Your task to perform on an android device: Show me recent news Image 0: 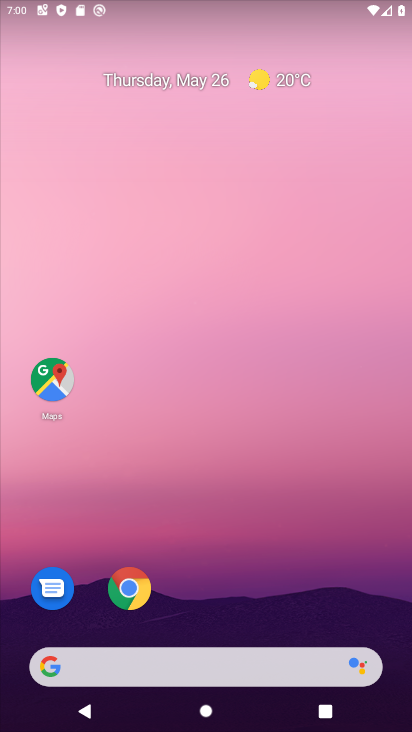
Step 0: drag from (370, 600) to (267, 63)
Your task to perform on an android device: Show me recent news Image 1: 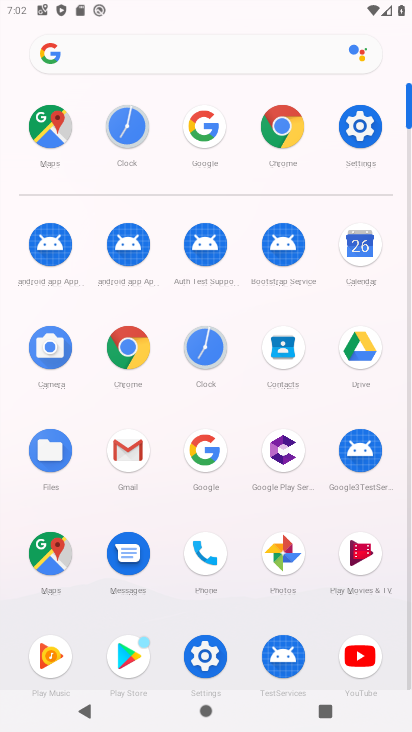
Step 1: click (203, 460)
Your task to perform on an android device: Show me recent news Image 2: 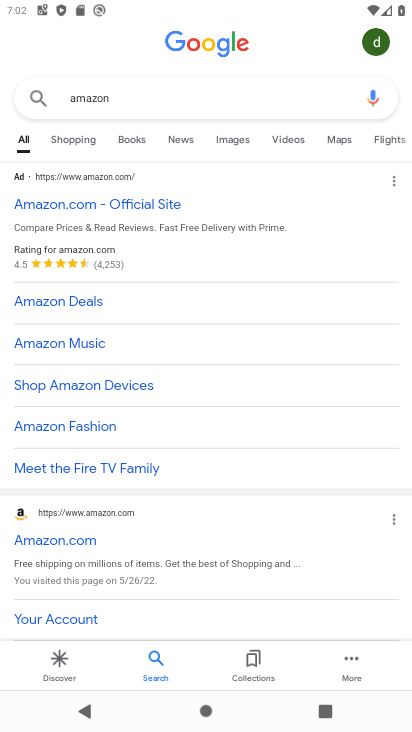
Step 2: press back button
Your task to perform on an android device: Show me recent news Image 3: 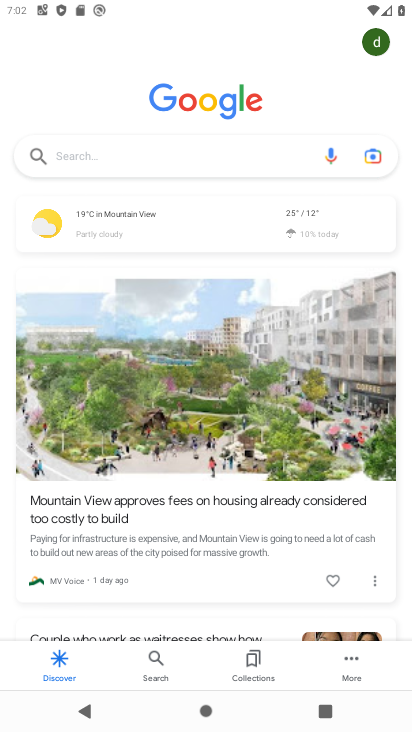
Step 3: click (124, 143)
Your task to perform on an android device: Show me recent news Image 4: 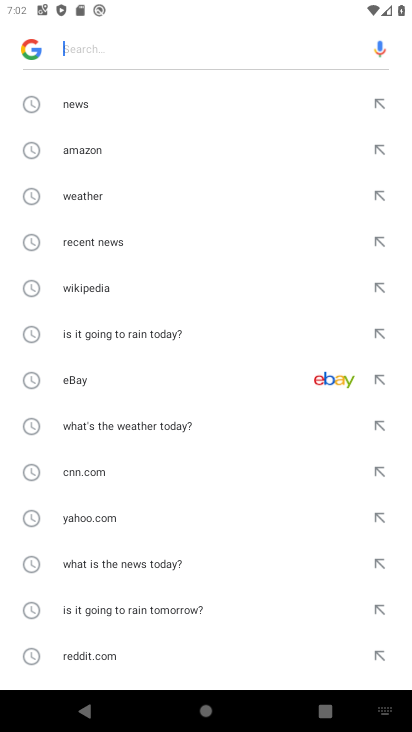
Step 4: click (121, 227)
Your task to perform on an android device: Show me recent news Image 5: 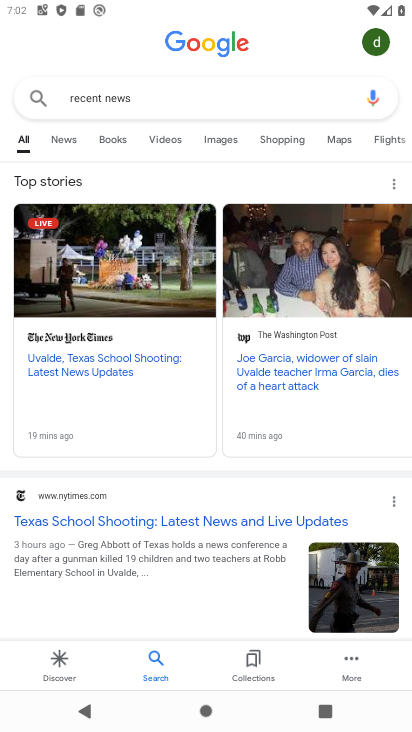
Step 5: task complete